Your task to perform on an android device: turn off airplane mode Image 0: 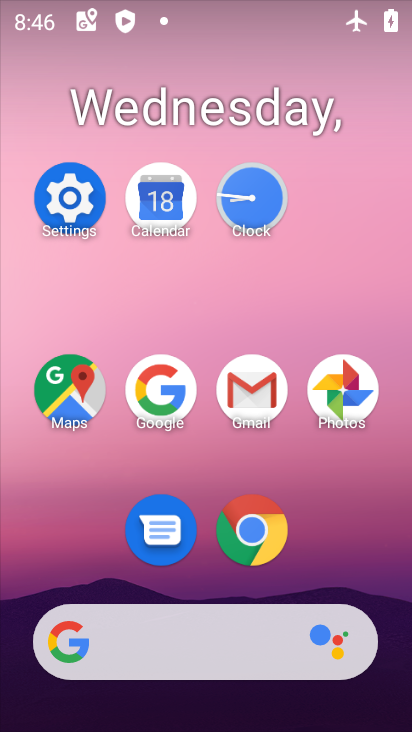
Step 0: click (70, 183)
Your task to perform on an android device: turn off airplane mode Image 1: 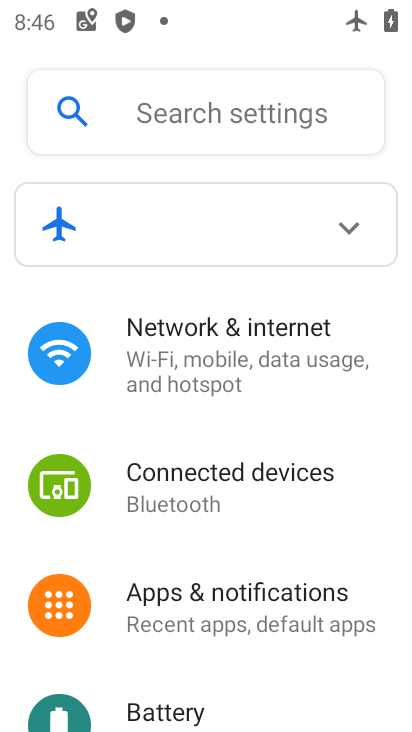
Step 1: click (252, 357)
Your task to perform on an android device: turn off airplane mode Image 2: 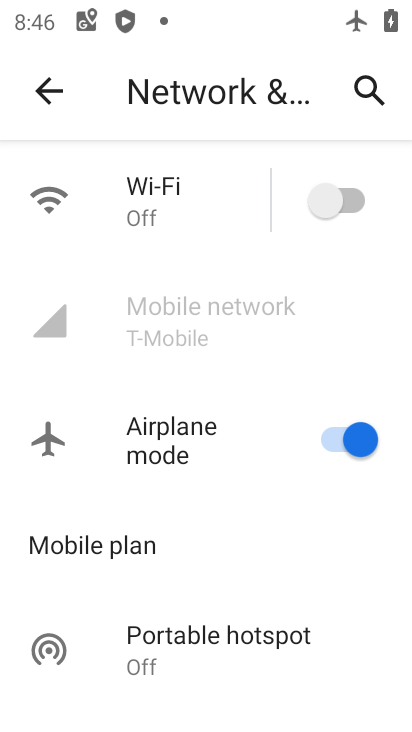
Step 2: click (366, 441)
Your task to perform on an android device: turn off airplane mode Image 3: 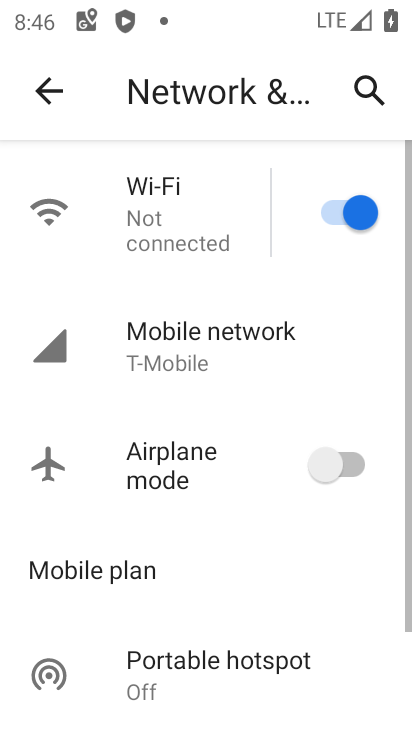
Step 3: task complete